Your task to perform on an android device: Search for "bose soundlink mini" on walmart.com, select the first entry, and add it to the cart. Image 0: 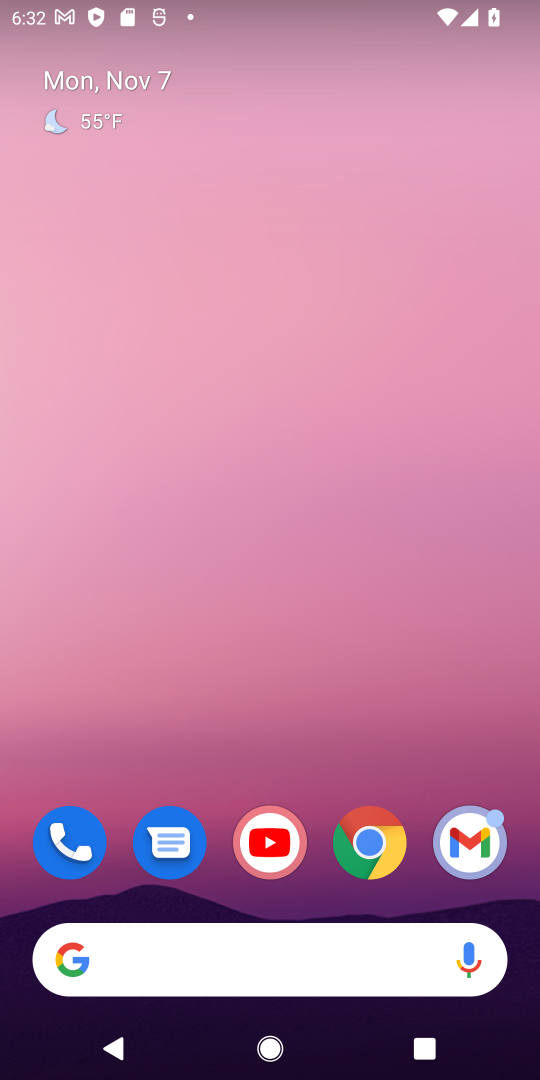
Step 0: click (375, 848)
Your task to perform on an android device: Search for "bose soundlink mini" on walmart.com, select the first entry, and add it to the cart. Image 1: 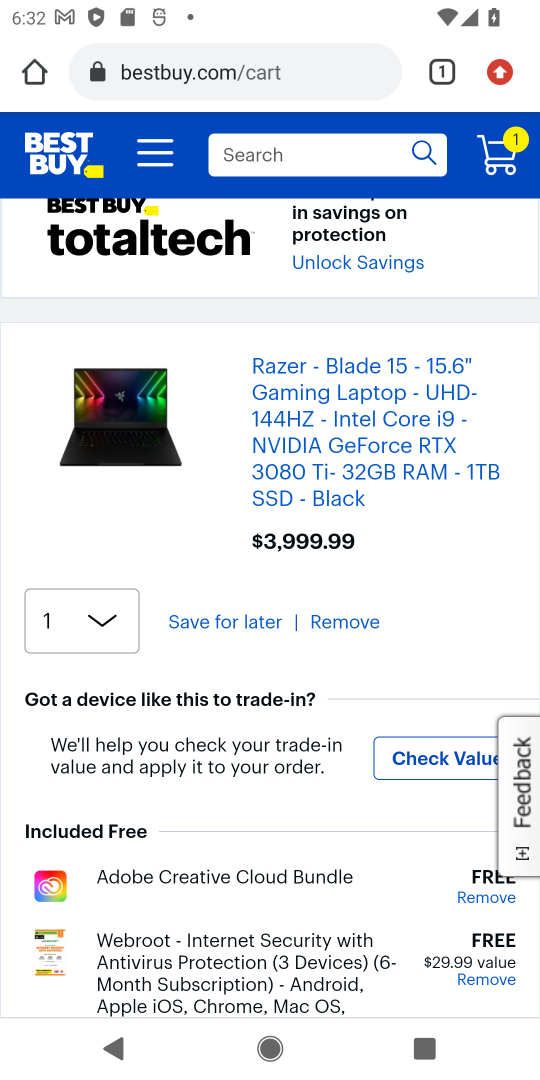
Step 1: click (243, 64)
Your task to perform on an android device: Search for "bose soundlink mini" on walmart.com, select the first entry, and add it to the cart. Image 2: 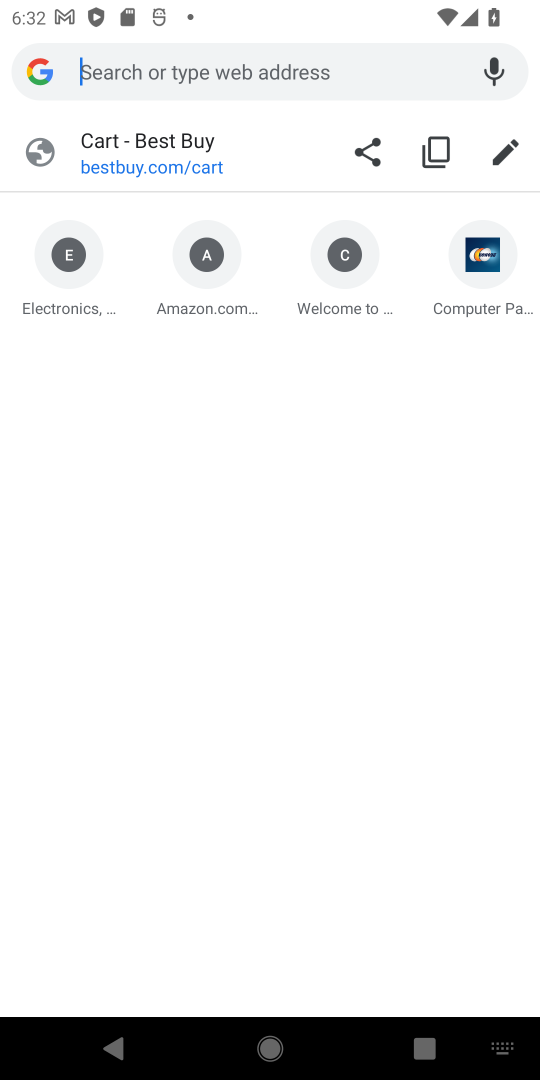
Step 2: drag from (483, 276) to (7, 307)
Your task to perform on an android device: Search for "bose soundlink mini" on walmart.com, select the first entry, and add it to the cart. Image 3: 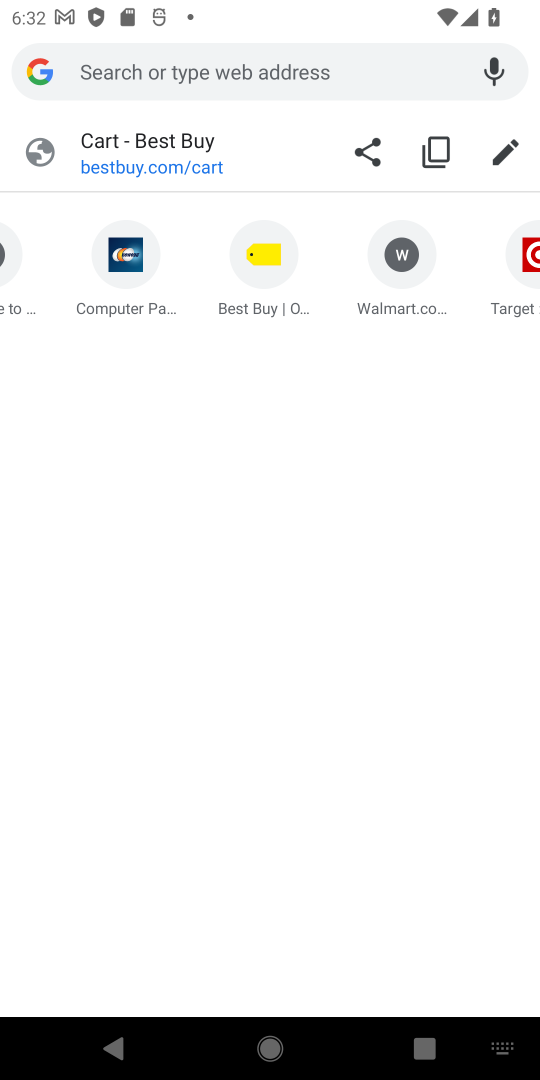
Step 3: click (374, 300)
Your task to perform on an android device: Search for "bose soundlink mini" on walmart.com, select the first entry, and add it to the cart. Image 4: 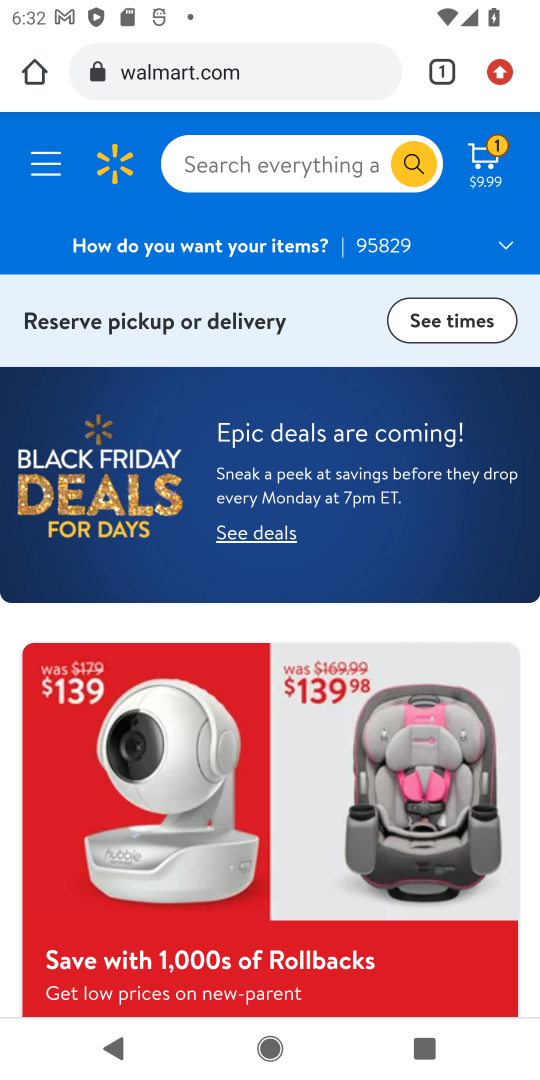
Step 4: click (237, 163)
Your task to perform on an android device: Search for "bose soundlink mini" on walmart.com, select the first entry, and add it to the cart. Image 5: 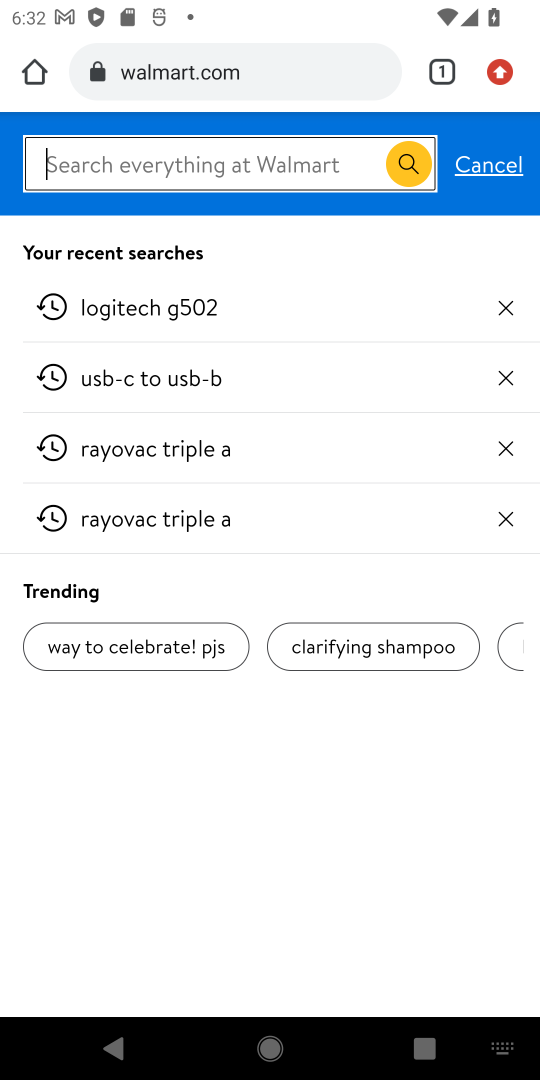
Step 5: type "bose soundlink mini"
Your task to perform on an android device: Search for "bose soundlink mini" on walmart.com, select the first entry, and add it to the cart. Image 6: 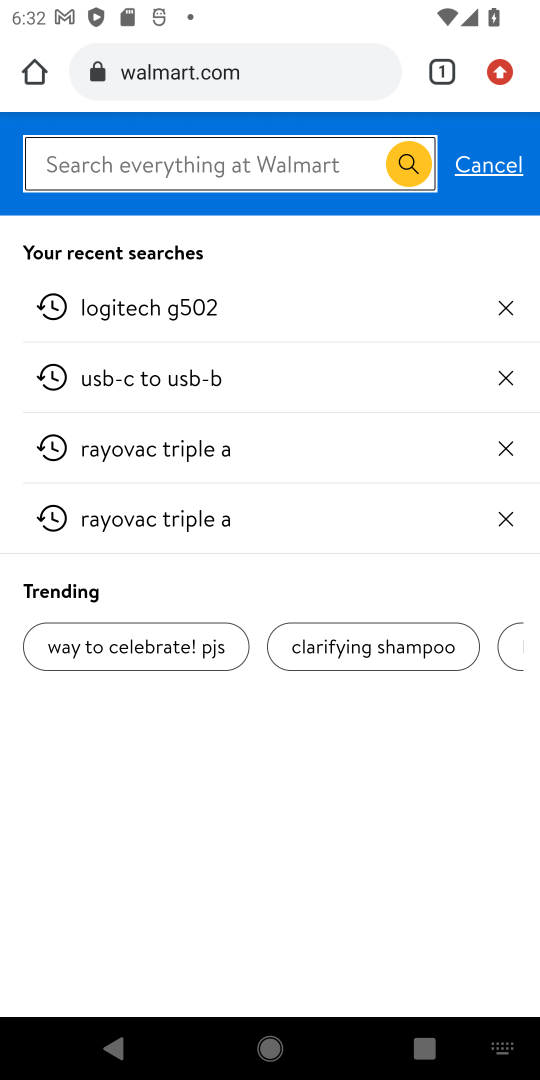
Step 6: press enter
Your task to perform on an android device: Search for "bose soundlink mini" on walmart.com, select the first entry, and add it to the cart. Image 7: 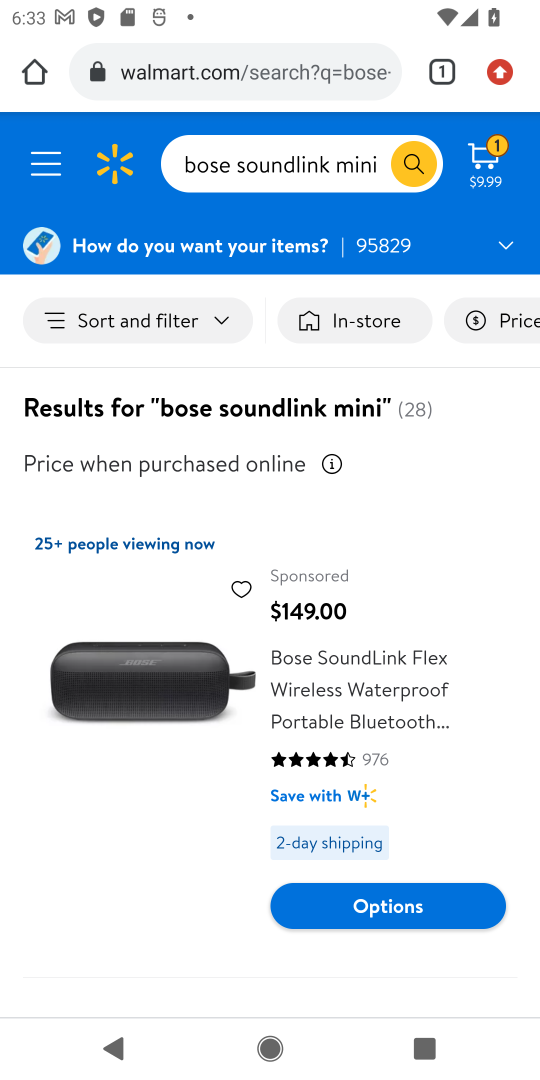
Step 7: click (348, 705)
Your task to perform on an android device: Search for "bose soundlink mini" on walmart.com, select the first entry, and add it to the cart. Image 8: 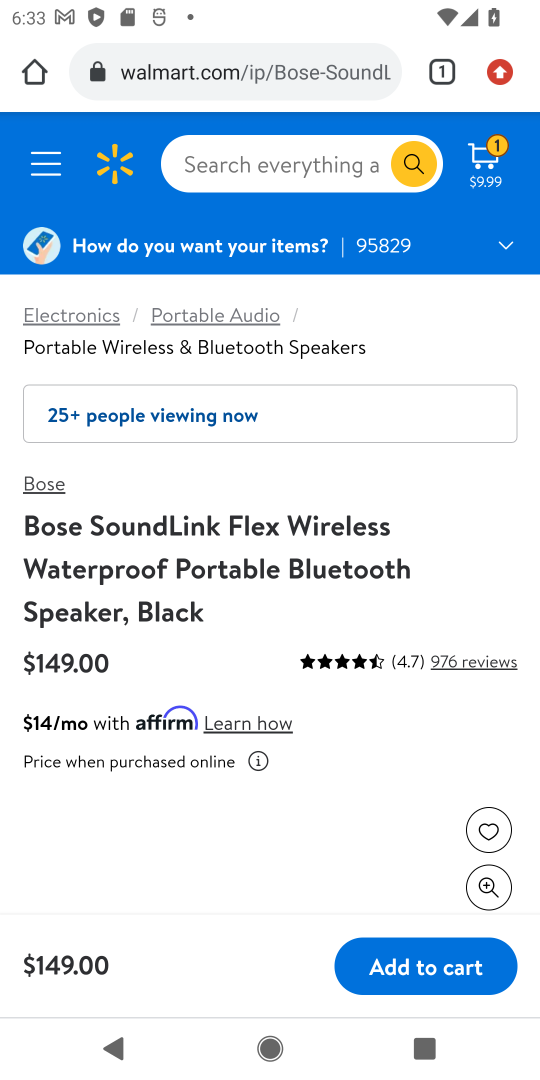
Step 8: drag from (162, 845) to (440, 204)
Your task to perform on an android device: Search for "bose soundlink mini" on walmart.com, select the first entry, and add it to the cart. Image 9: 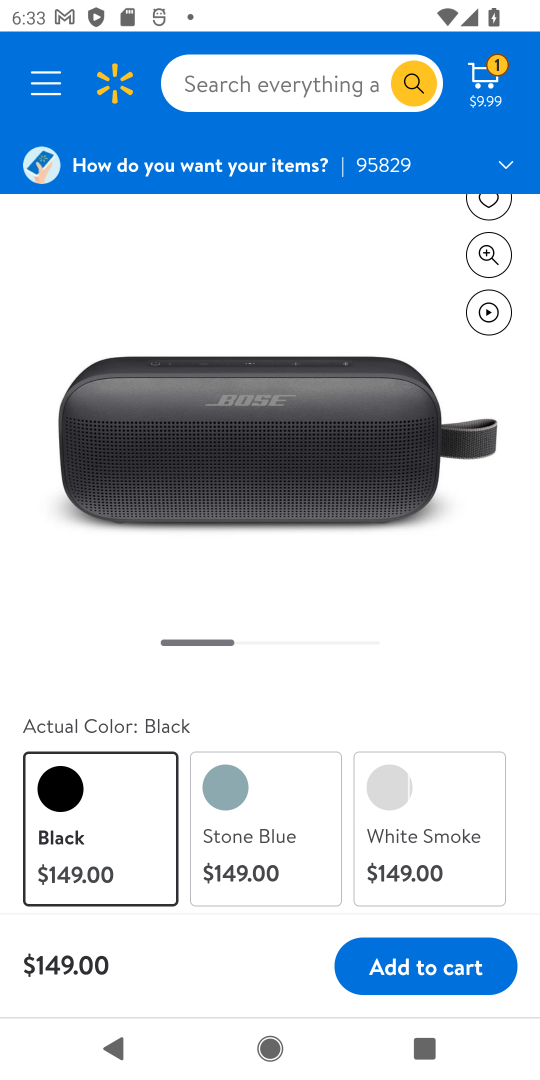
Step 9: click (418, 975)
Your task to perform on an android device: Search for "bose soundlink mini" on walmart.com, select the first entry, and add it to the cart. Image 10: 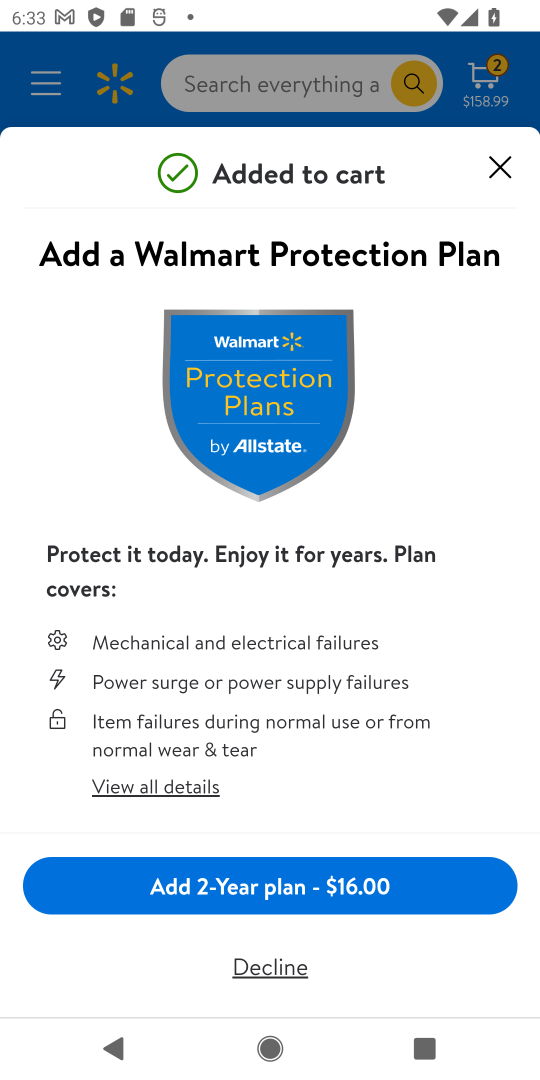
Step 10: click (301, 969)
Your task to perform on an android device: Search for "bose soundlink mini" on walmart.com, select the first entry, and add it to the cart. Image 11: 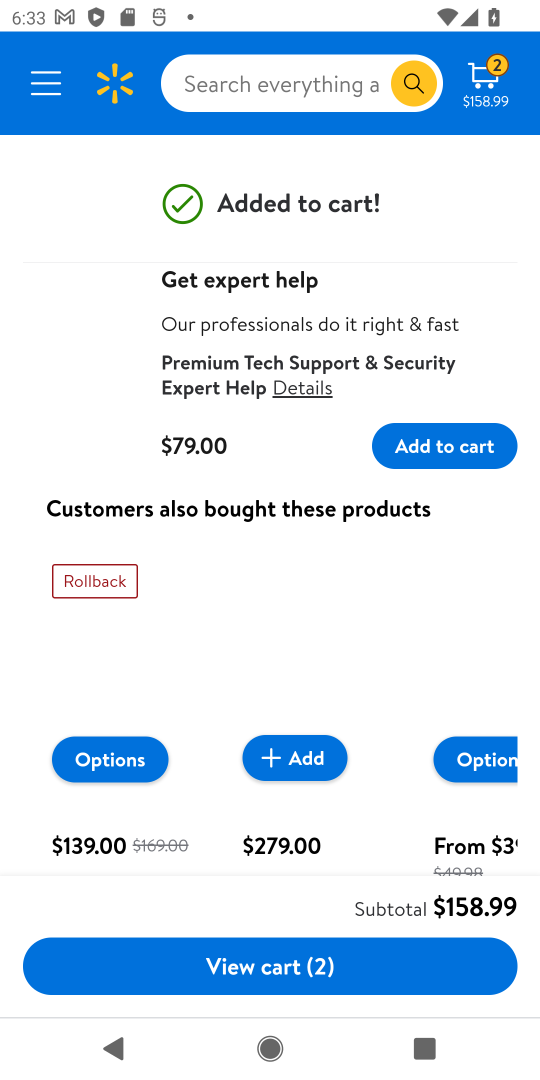
Step 11: click (495, 78)
Your task to perform on an android device: Search for "bose soundlink mini" on walmart.com, select the first entry, and add it to the cart. Image 12: 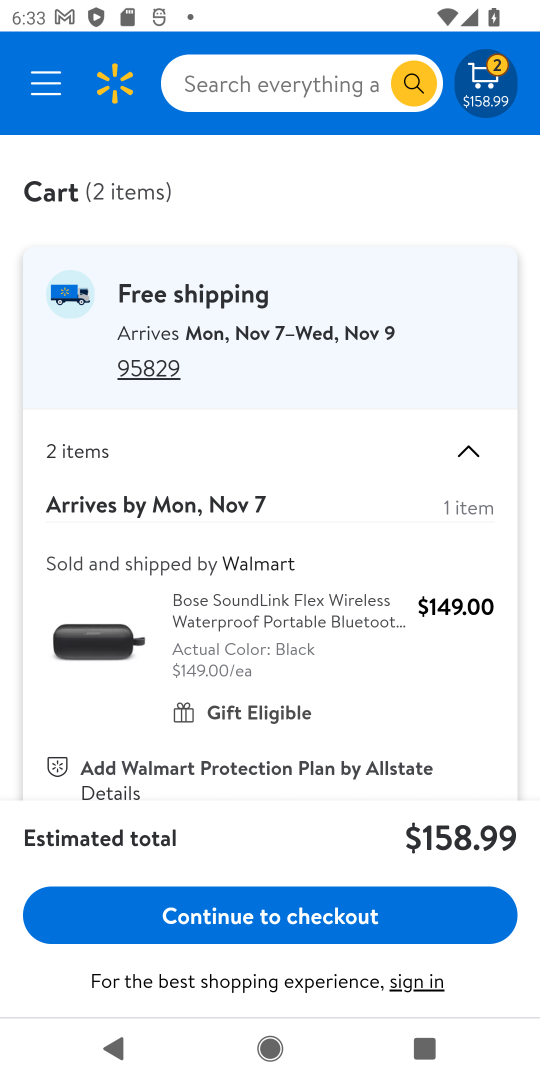
Step 12: drag from (284, 748) to (540, 29)
Your task to perform on an android device: Search for "bose soundlink mini" on walmart.com, select the first entry, and add it to the cart. Image 13: 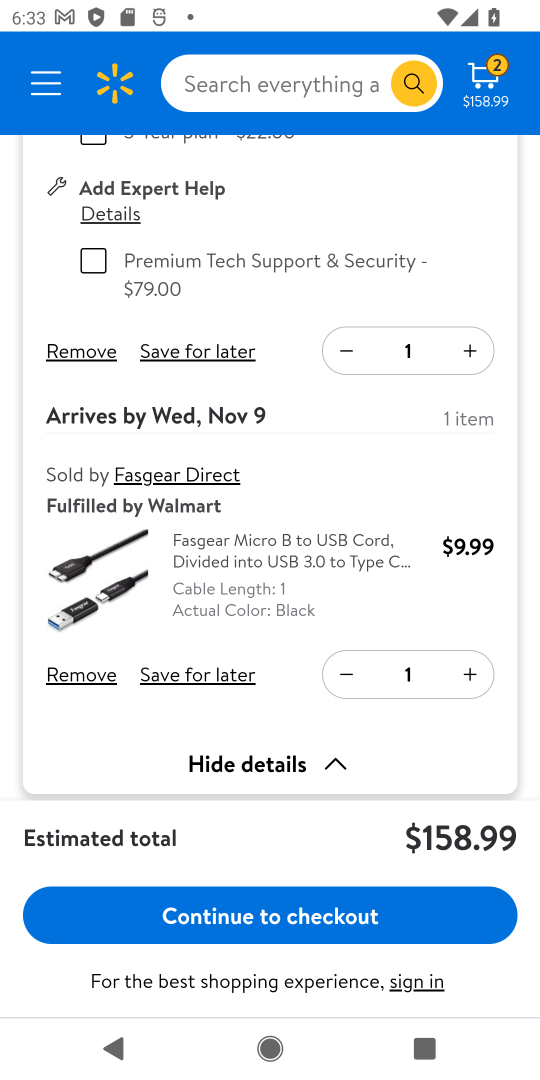
Step 13: click (79, 674)
Your task to perform on an android device: Search for "bose soundlink mini" on walmart.com, select the first entry, and add it to the cart. Image 14: 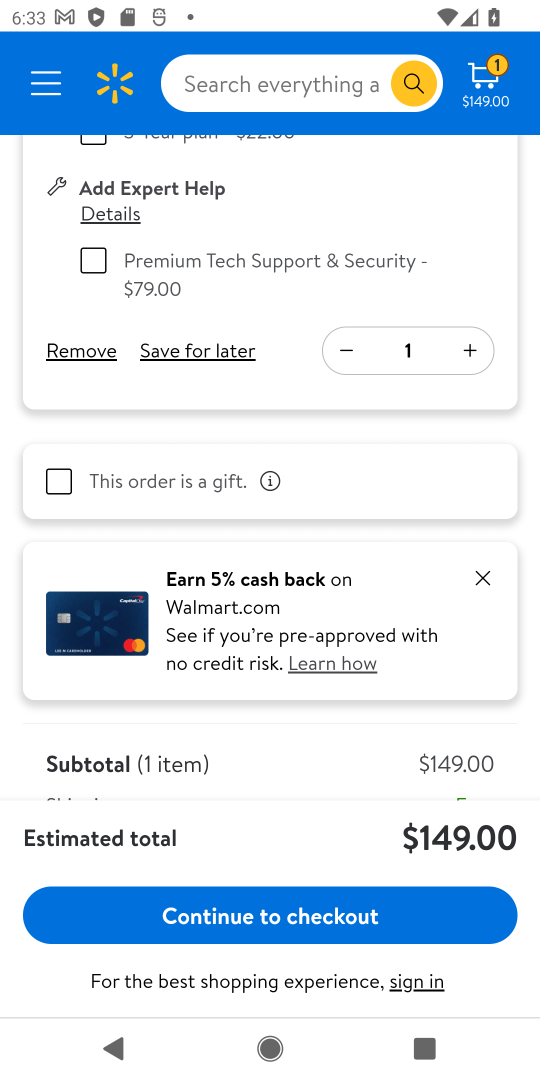
Step 14: task complete